Your task to perform on an android device: Open internet settings Image 0: 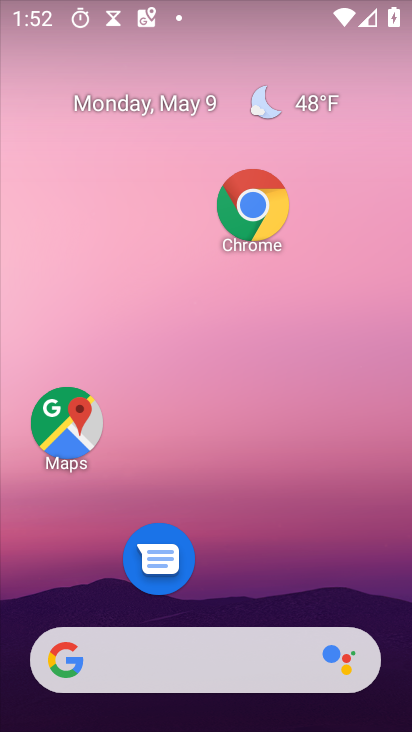
Step 0: drag from (319, 470) to (312, 242)
Your task to perform on an android device: Open internet settings Image 1: 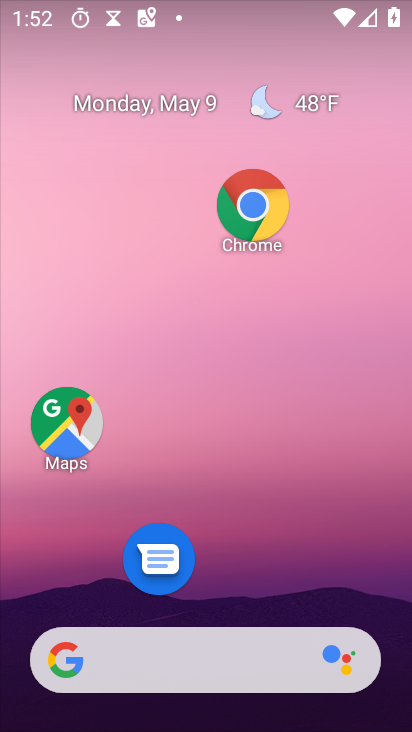
Step 1: drag from (309, 500) to (366, 249)
Your task to perform on an android device: Open internet settings Image 2: 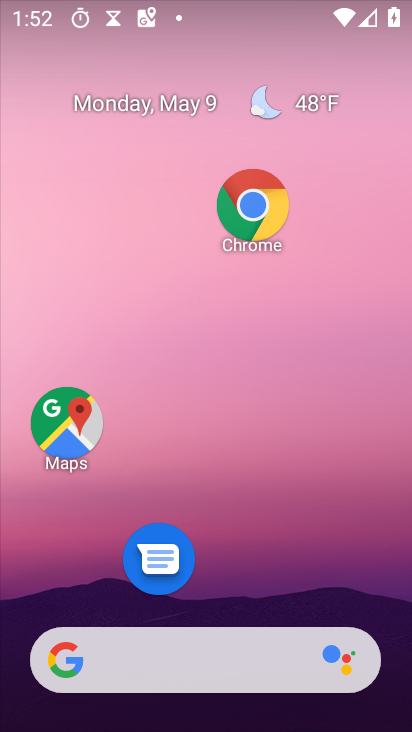
Step 2: drag from (324, 559) to (321, 210)
Your task to perform on an android device: Open internet settings Image 3: 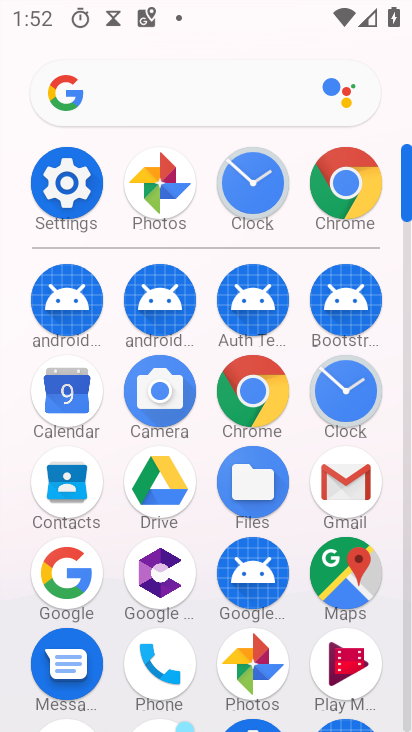
Step 3: click (76, 179)
Your task to perform on an android device: Open internet settings Image 4: 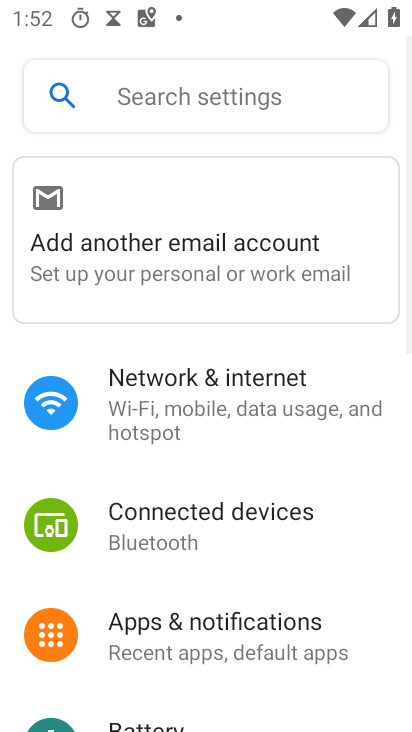
Step 4: click (236, 359)
Your task to perform on an android device: Open internet settings Image 5: 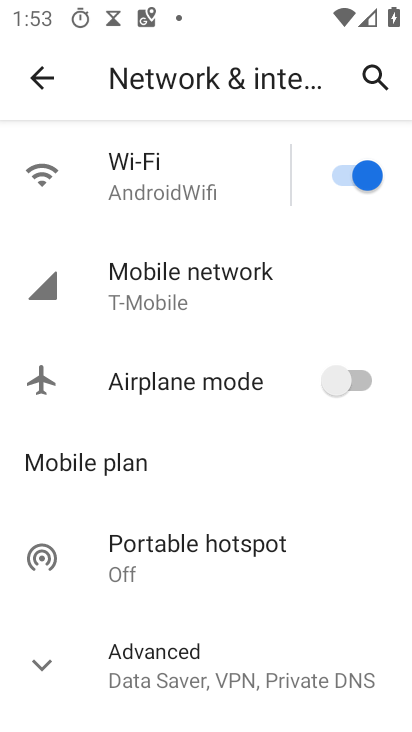
Step 5: task complete